Your task to perform on an android device: toggle improve location accuracy Image 0: 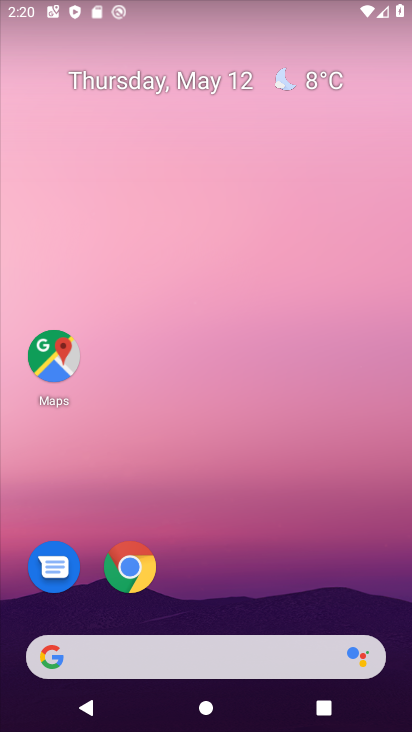
Step 0: drag from (202, 589) to (269, 139)
Your task to perform on an android device: toggle improve location accuracy Image 1: 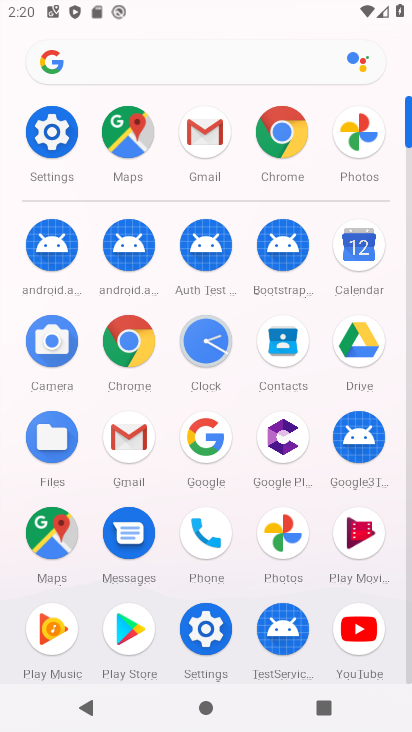
Step 1: click (47, 125)
Your task to perform on an android device: toggle improve location accuracy Image 2: 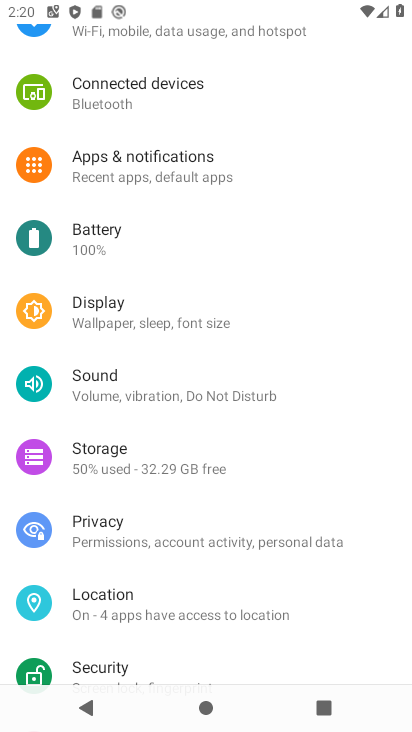
Step 2: click (139, 590)
Your task to perform on an android device: toggle improve location accuracy Image 3: 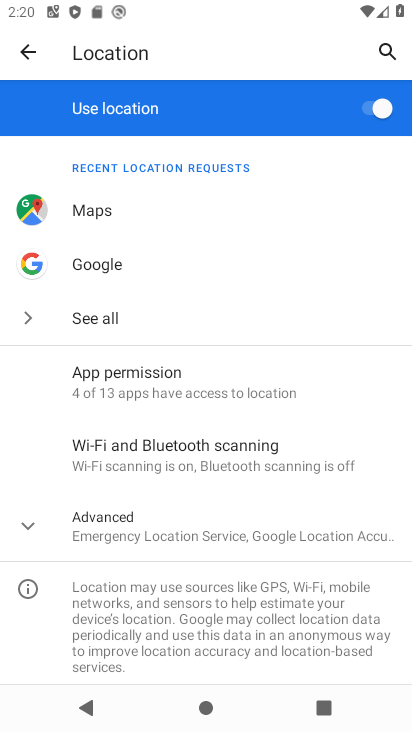
Step 3: click (44, 526)
Your task to perform on an android device: toggle improve location accuracy Image 4: 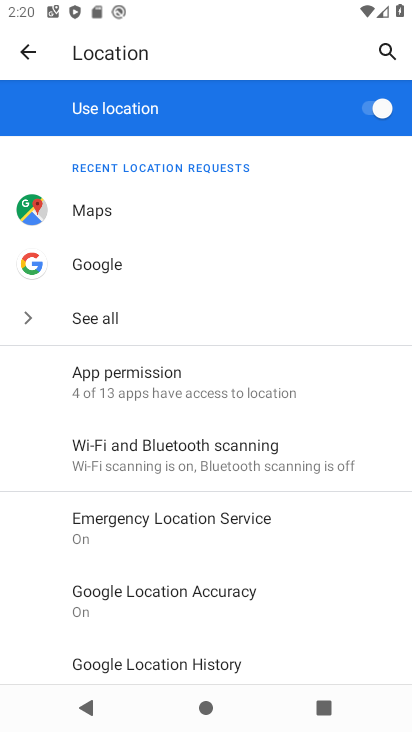
Step 4: click (216, 601)
Your task to perform on an android device: toggle improve location accuracy Image 5: 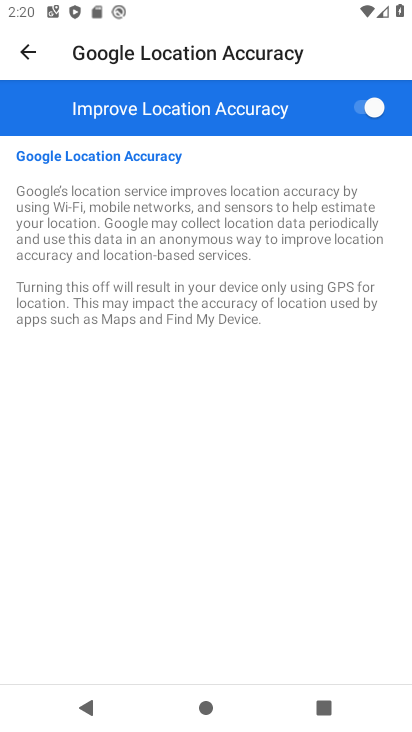
Step 5: click (360, 108)
Your task to perform on an android device: toggle improve location accuracy Image 6: 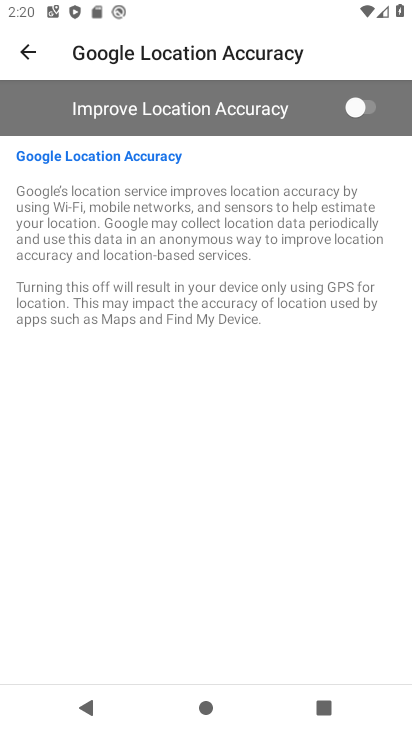
Step 6: task complete